Your task to perform on an android device: add a contact Image 0: 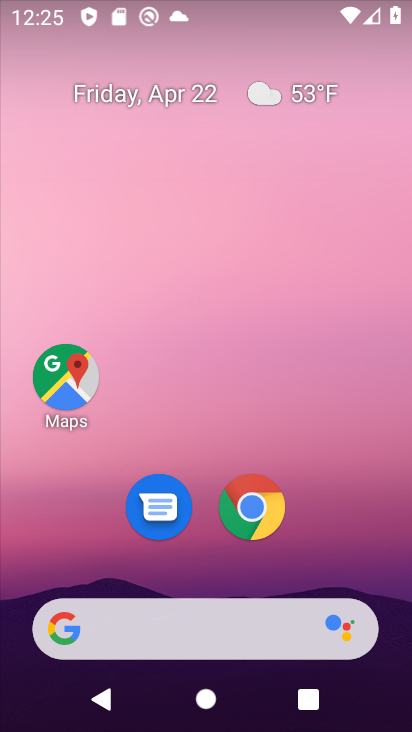
Step 0: drag from (331, 437) to (316, 208)
Your task to perform on an android device: add a contact Image 1: 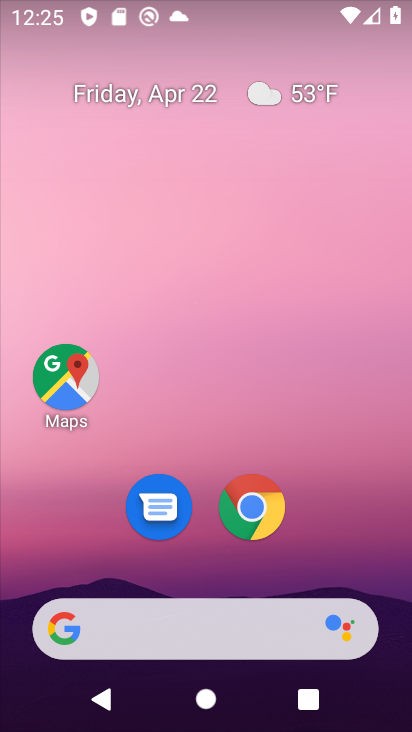
Step 1: drag from (337, 386) to (325, 62)
Your task to perform on an android device: add a contact Image 2: 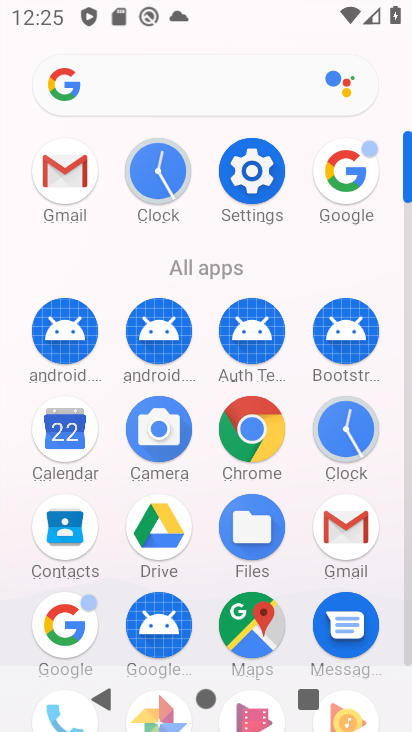
Step 2: click (63, 527)
Your task to perform on an android device: add a contact Image 3: 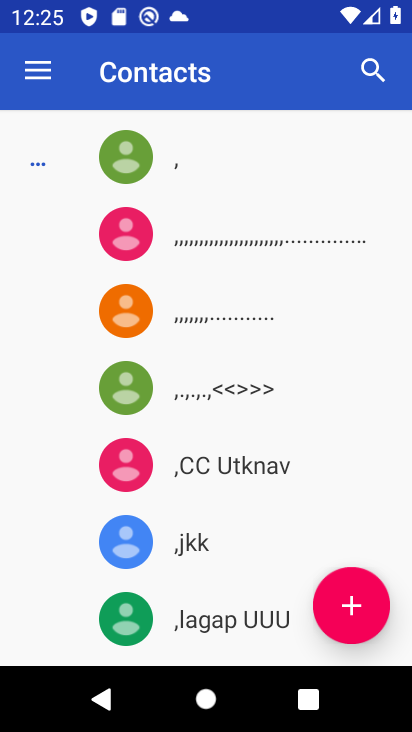
Step 3: click (349, 611)
Your task to perform on an android device: add a contact Image 4: 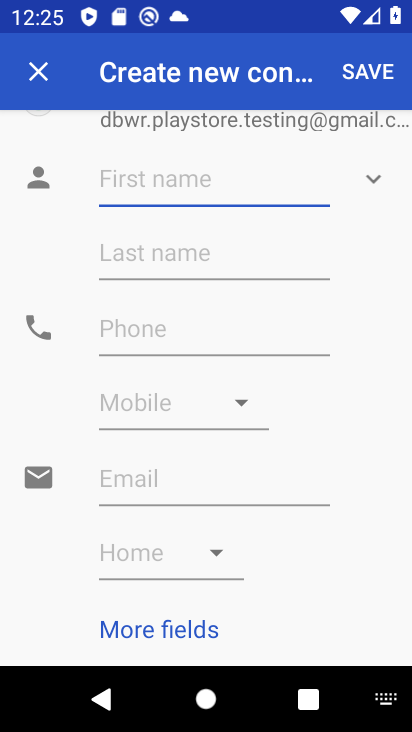
Step 4: click (178, 197)
Your task to perform on an android device: add a contact Image 5: 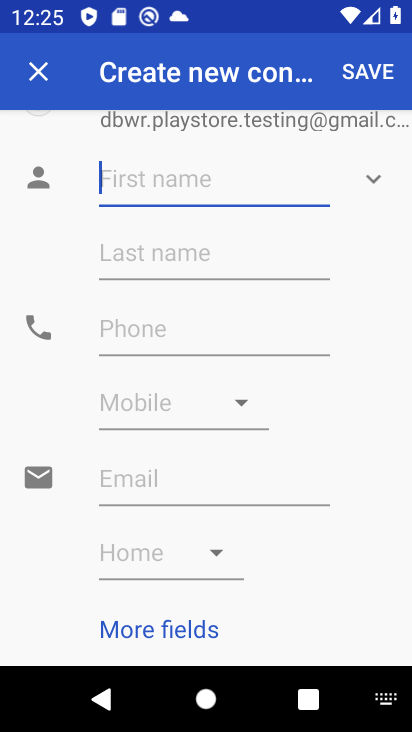
Step 5: type "geniala"
Your task to perform on an android device: add a contact Image 6: 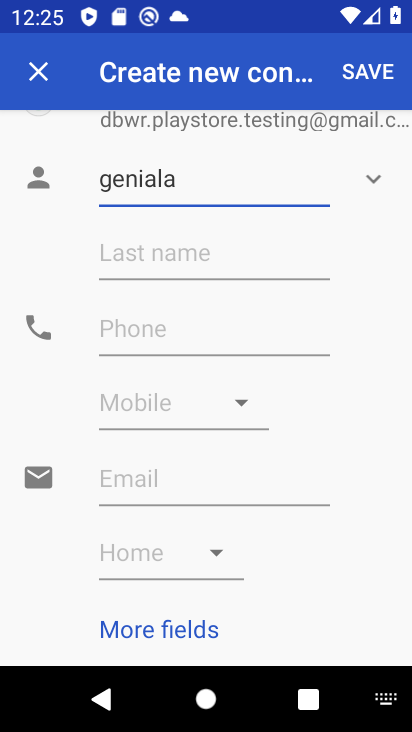
Step 6: click (138, 329)
Your task to perform on an android device: add a contact Image 7: 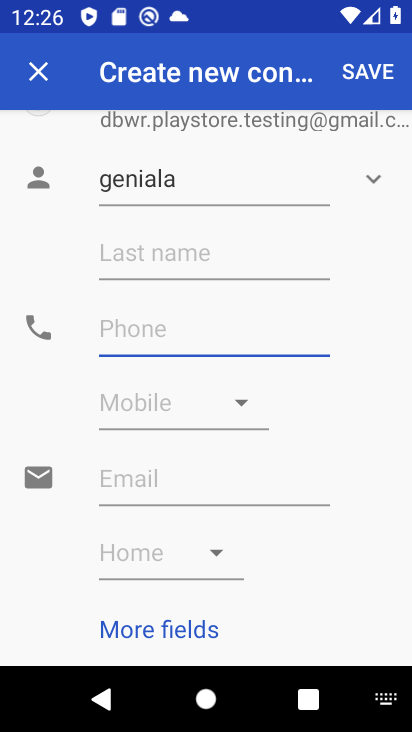
Step 7: type "8883467463"
Your task to perform on an android device: add a contact Image 8: 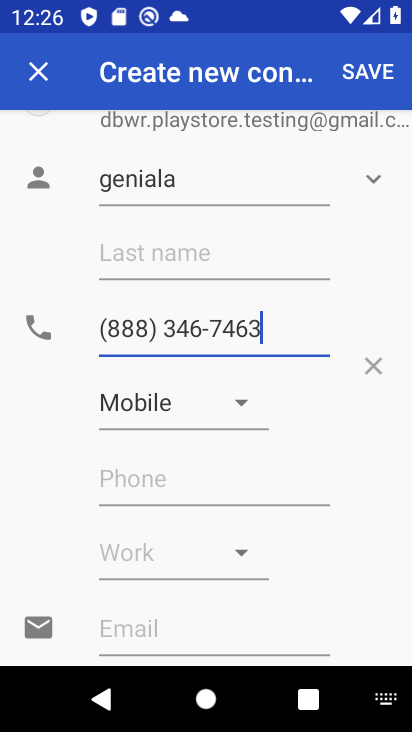
Step 8: click (375, 77)
Your task to perform on an android device: add a contact Image 9: 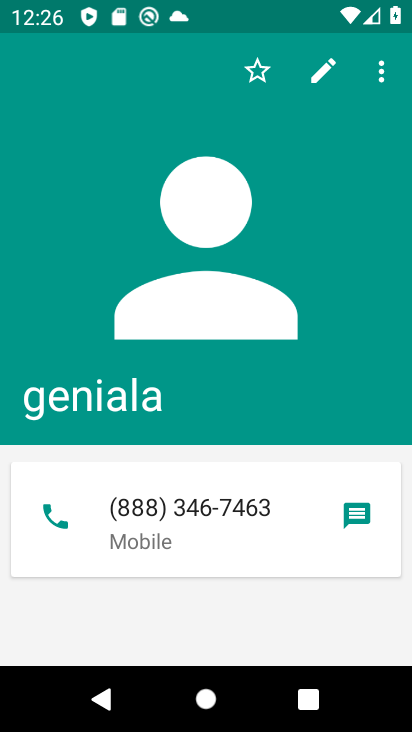
Step 9: task complete